Your task to perform on an android device: Clear the cart on walmart. Add bose quietcomfort 35 to the cart on walmart, then select checkout. Image 0: 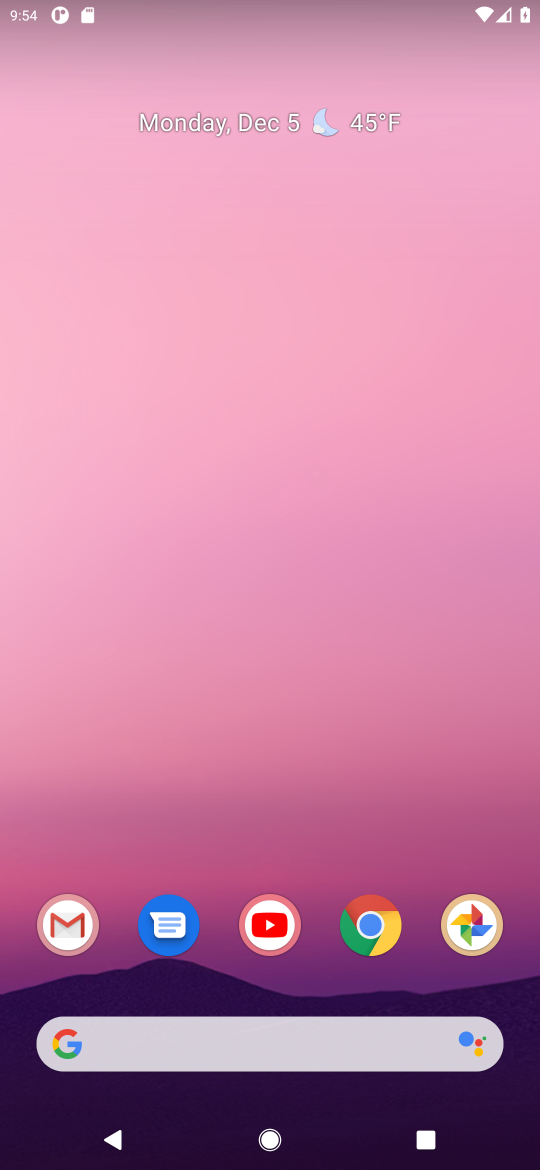
Step 0: click (379, 926)
Your task to perform on an android device: Clear the cart on walmart. Add bose quietcomfort 35 to the cart on walmart, then select checkout. Image 1: 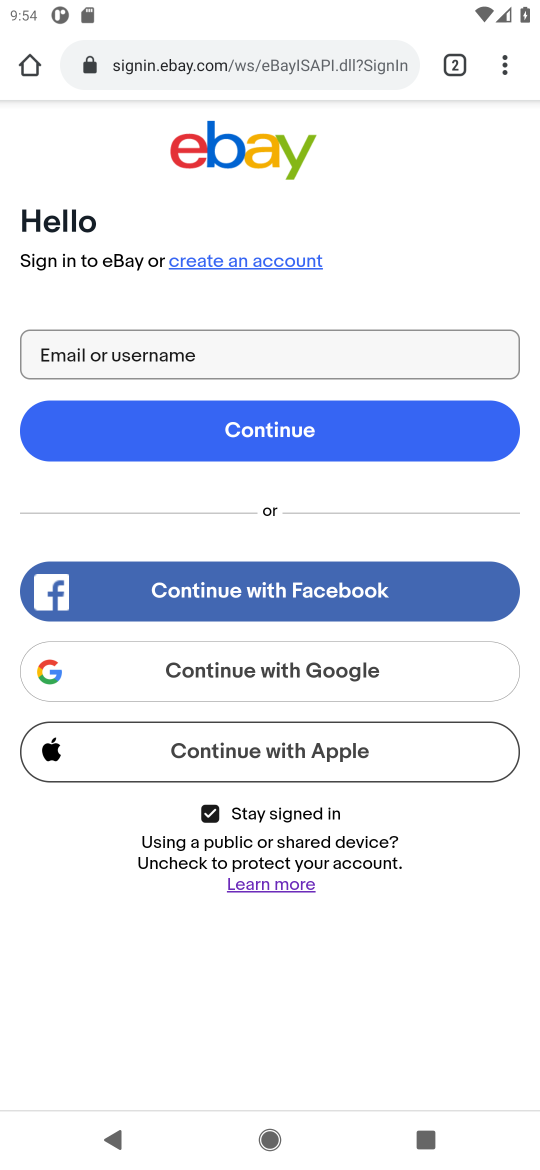
Step 1: click (227, 70)
Your task to perform on an android device: Clear the cart on walmart. Add bose quietcomfort 35 to the cart on walmart, then select checkout. Image 2: 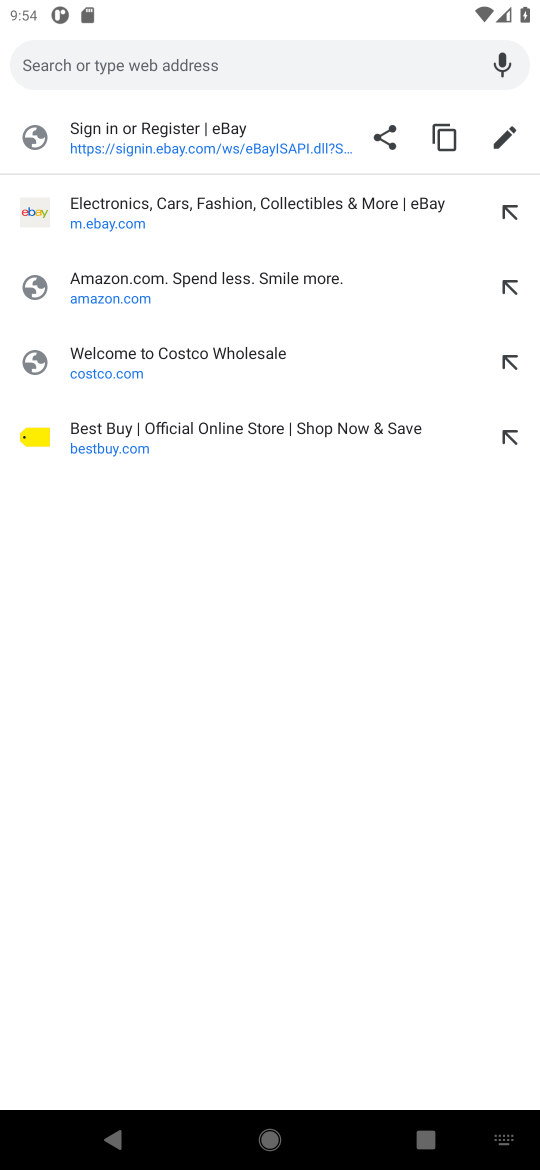
Step 2: type "walmart.com"
Your task to perform on an android device: Clear the cart on walmart. Add bose quietcomfort 35 to the cart on walmart, then select checkout. Image 3: 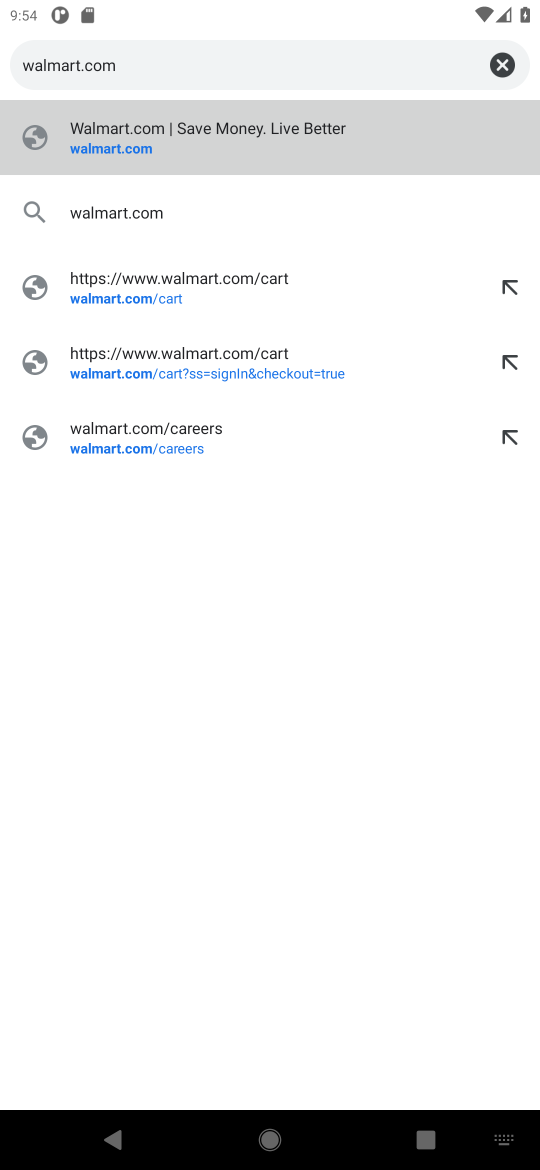
Step 3: click (122, 143)
Your task to perform on an android device: Clear the cart on walmart. Add bose quietcomfort 35 to the cart on walmart, then select checkout. Image 4: 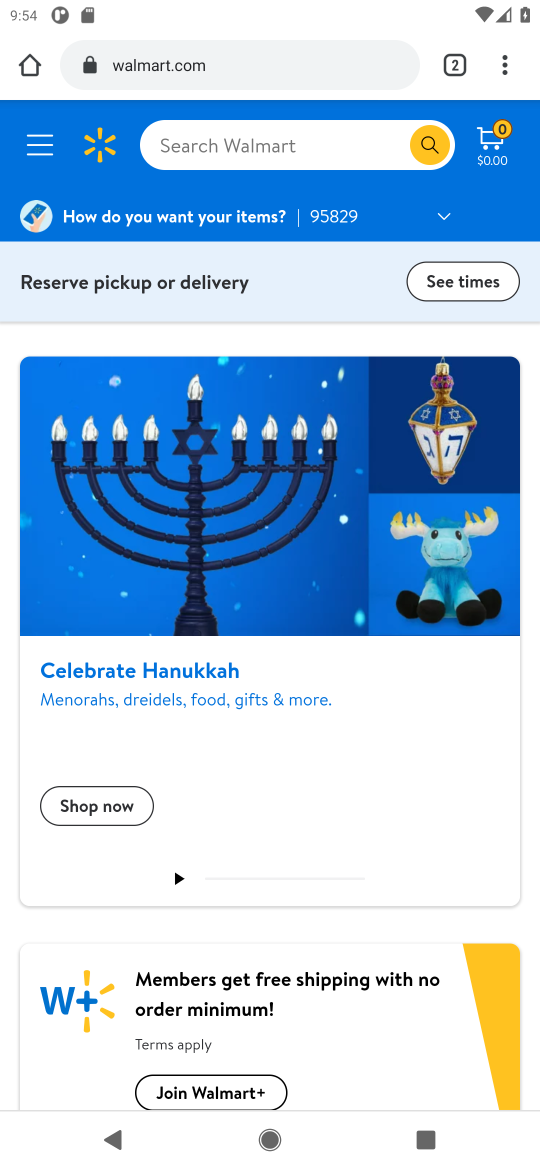
Step 4: click (489, 147)
Your task to perform on an android device: Clear the cart on walmart. Add bose quietcomfort 35 to the cart on walmart, then select checkout. Image 5: 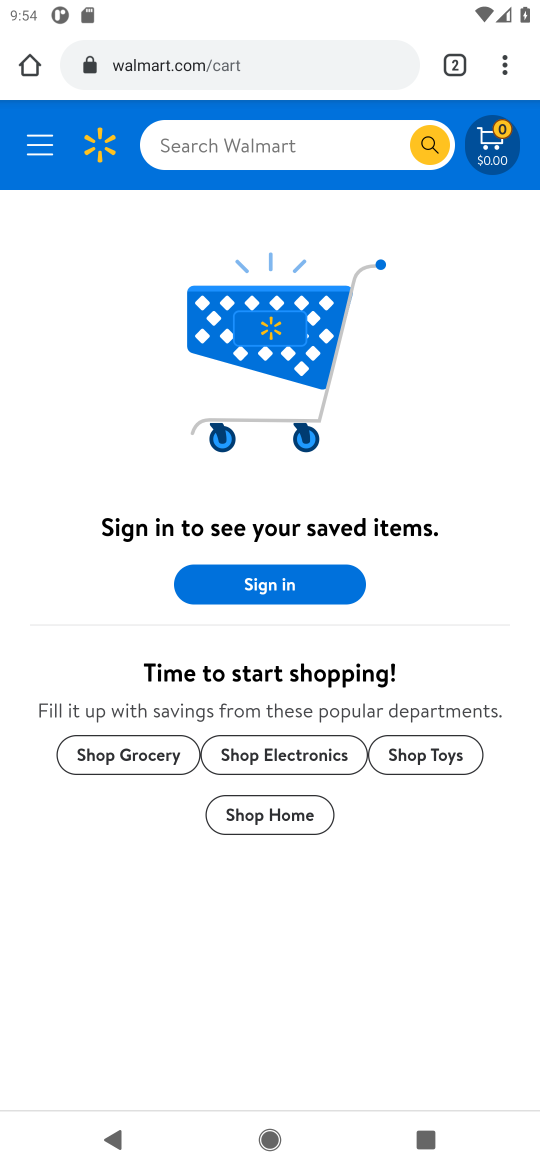
Step 5: click (231, 154)
Your task to perform on an android device: Clear the cart on walmart. Add bose quietcomfort 35 to the cart on walmart, then select checkout. Image 6: 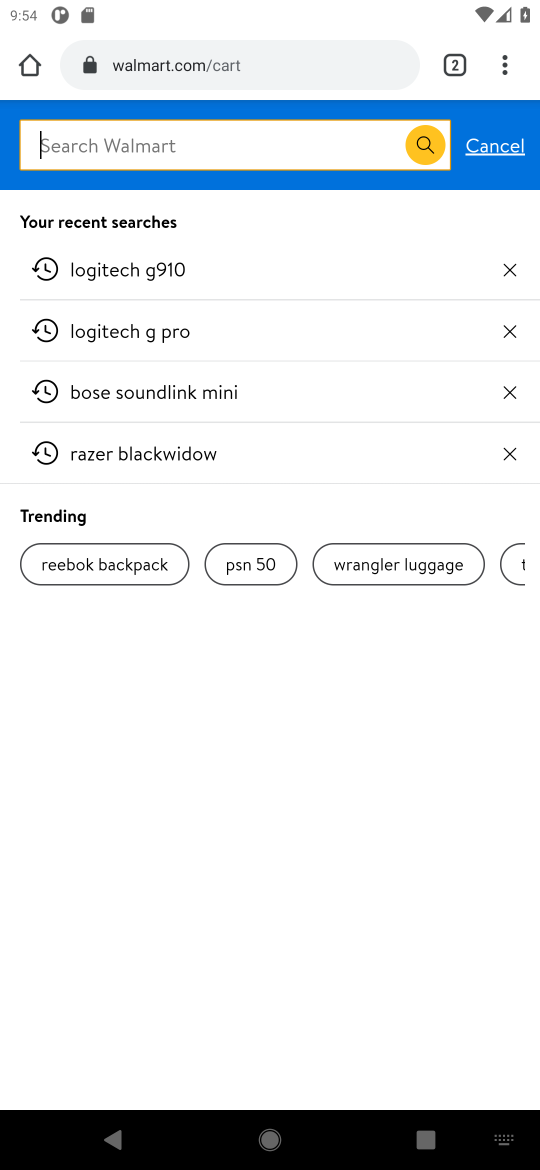
Step 6: type "bose quietcomfort 35 "
Your task to perform on an android device: Clear the cart on walmart. Add bose quietcomfort 35 to the cart on walmart, then select checkout. Image 7: 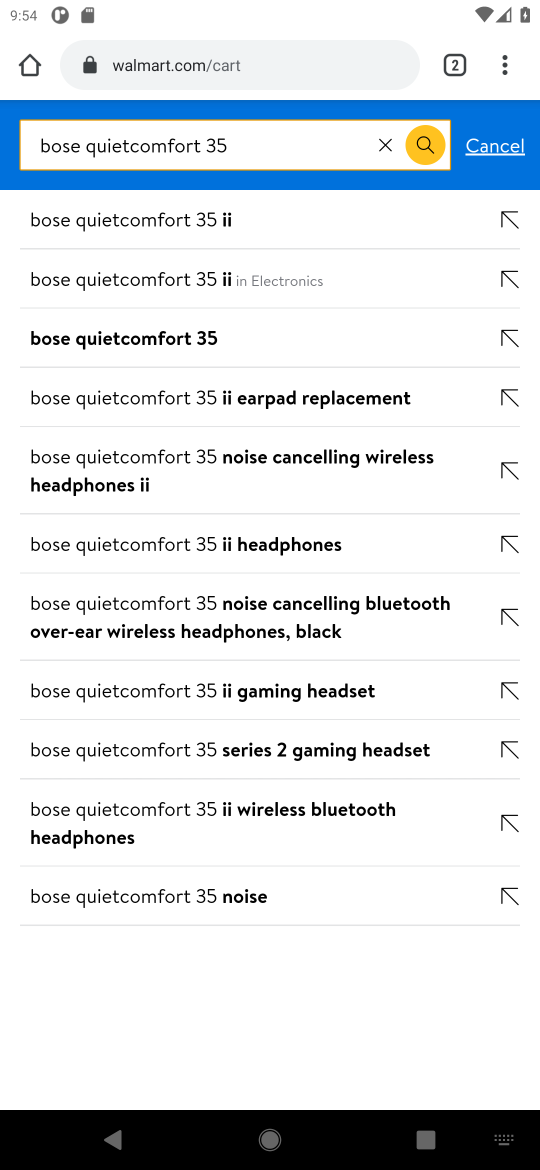
Step 7: click (86, 343)
Your task to perform on an android device: Clear the cart on walmart. Add bose quietcomfort 35 to the cart on walmart, then select checkout. Image 8: 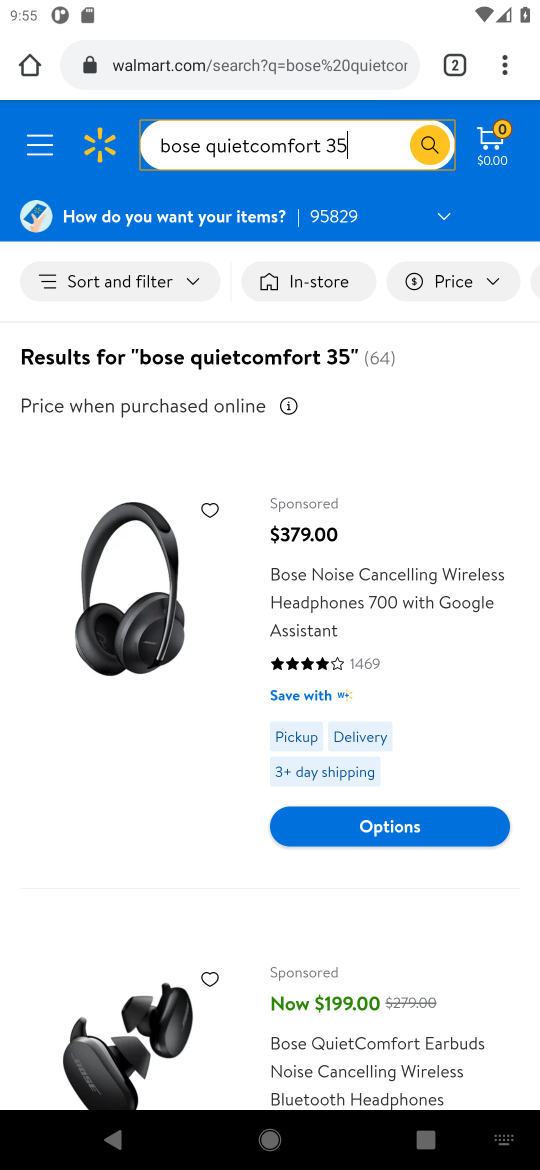
Step 8: drag from (281, 1010) to (258, 613)
Your task to perform on an android device: Clear the cart on walmart. Add bose quietcomfort 35 to the cart on walmart, then select checkout. Image 9: 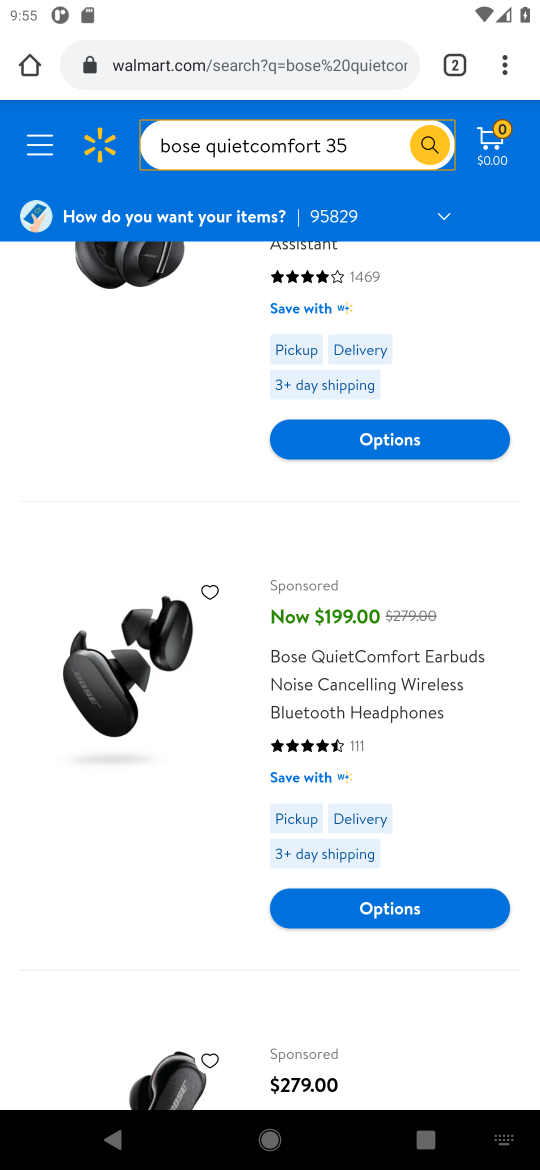
Step 9: drag from (279, 806) to (292, 434)
Your task to perform on an android device: Clear the cart on walmart. Add bose quietcomfort 35 to the cart on walmart, then select checkout. Image 10: 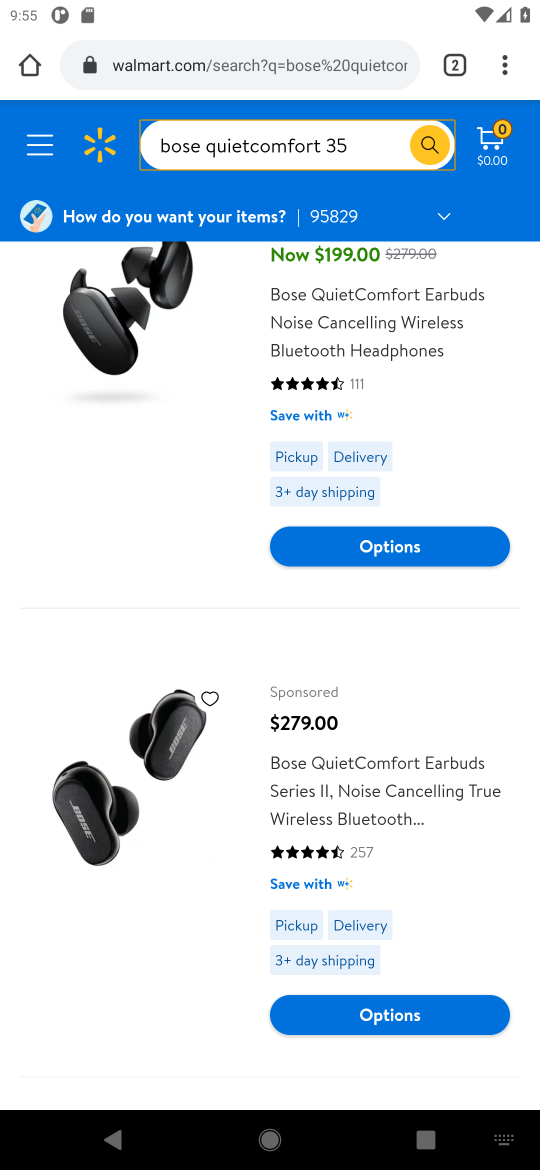
Step 10: drag from (178, 856) to (133, 408)
Your task to perform on an android device: Clear the cart on walmart. Add bose quietcomfort 35 to the cart on walmart, then select checkout. Image 11: 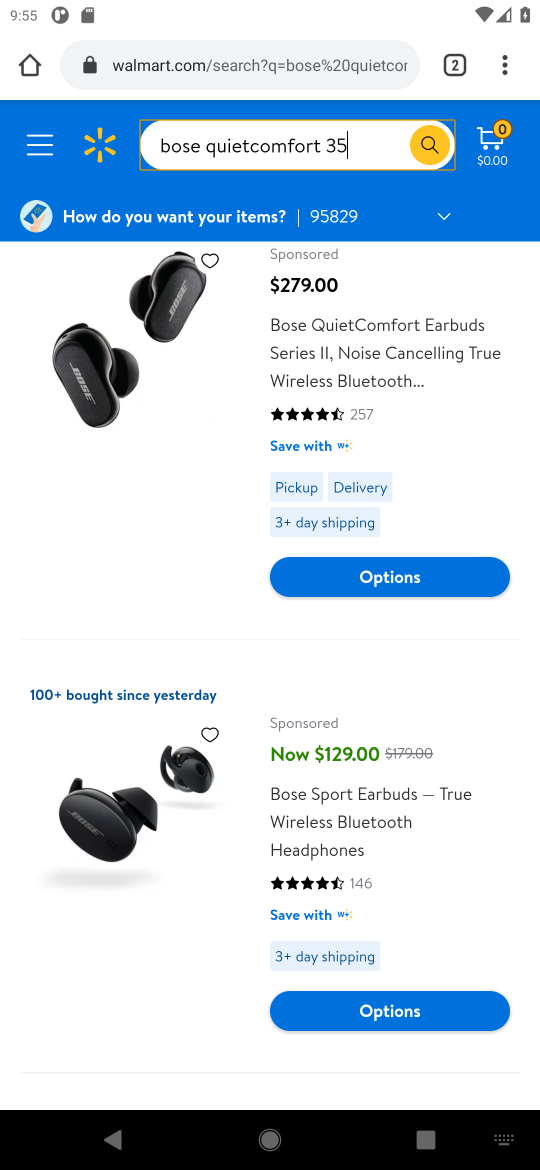
Step 11: drag from (162, 803) to (157, 342)
Your task to perform on an android device: Clear the cart on walmart. Add bose quietcomfort 35 to the cart on walmart, then select checkout. Image 12: 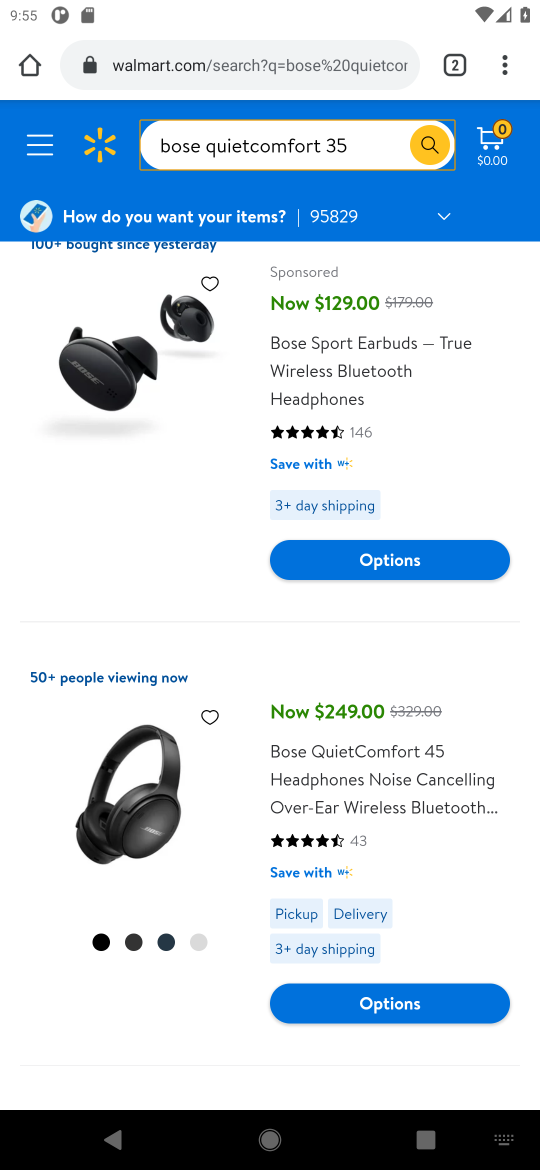
Step 12: drag from (163, 801) to (123, 378)
Your task to perform on an android device: Clear the cart on walmart. Add bose quietcomfort 35 to the cart on walmart, then select checkout. Image 13: 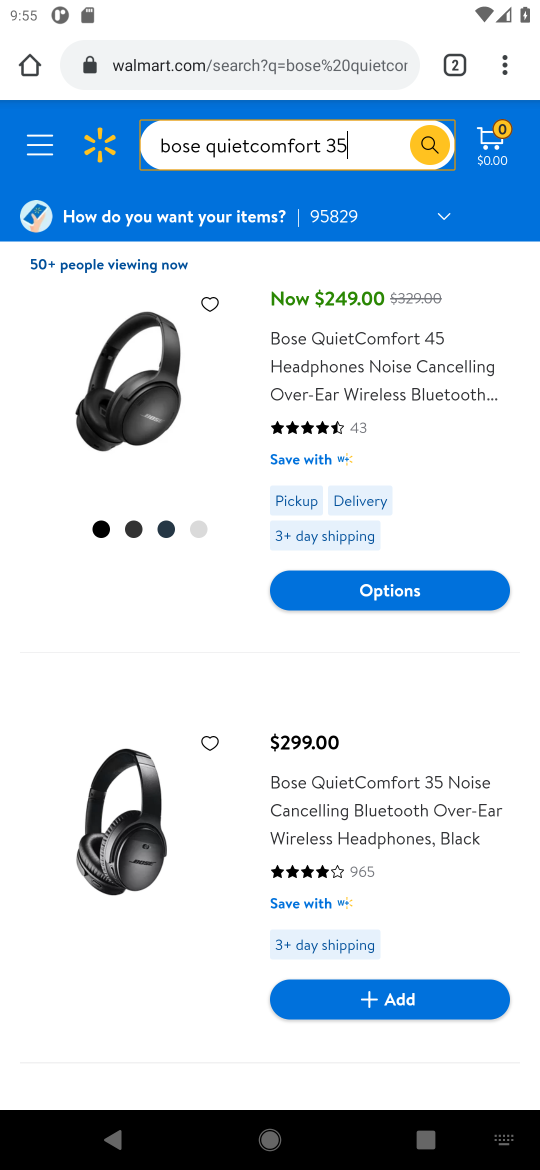
Step 13: click (362, 841)
Your task to perform on an android device: Clear the cart on walmart. Add bose quietcomfort 35 to the cart on walmart, then select checkout. Image 14: 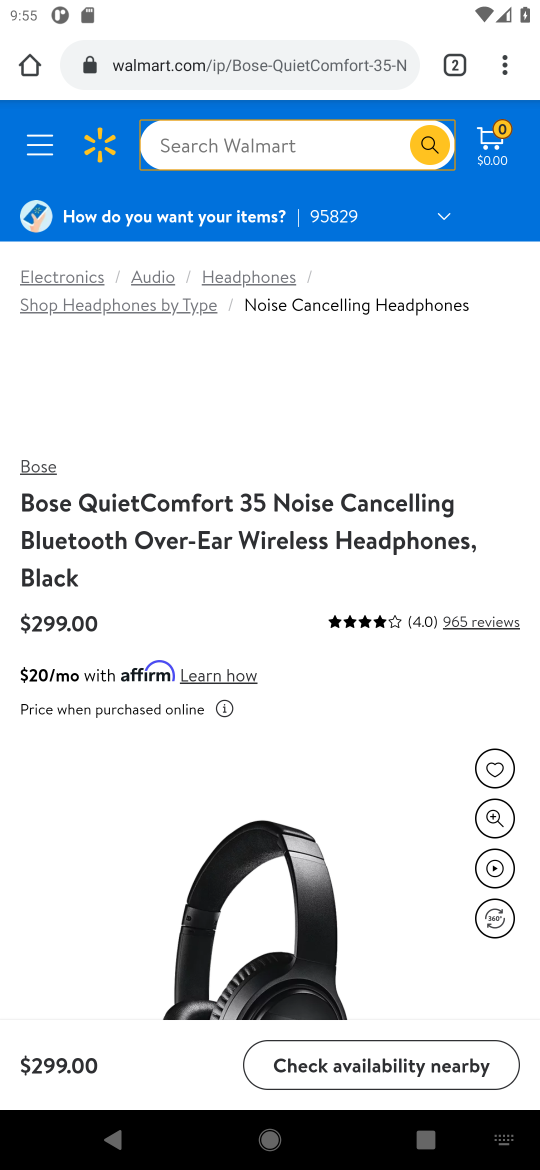
Step 14: drag from (352, 921) to (329, 385)
Your task to perform on an android device: Clear the cart on walmart. Add bose quietcomfort 35 to the cart on walmart, then select checkout. Image 15: 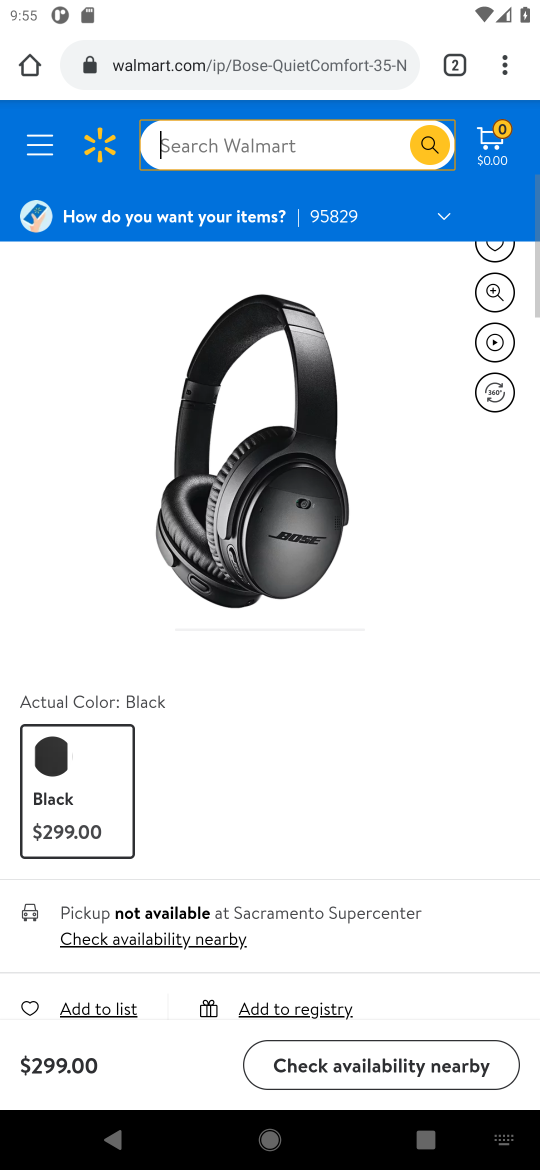
Step 15: drag from (386, 863) to (348, 453)
Your task to perform on an android device: Clear the cart on walmart. Add bose quietcomfort 35 to the cart on walmart, then select checkout. Image 16: 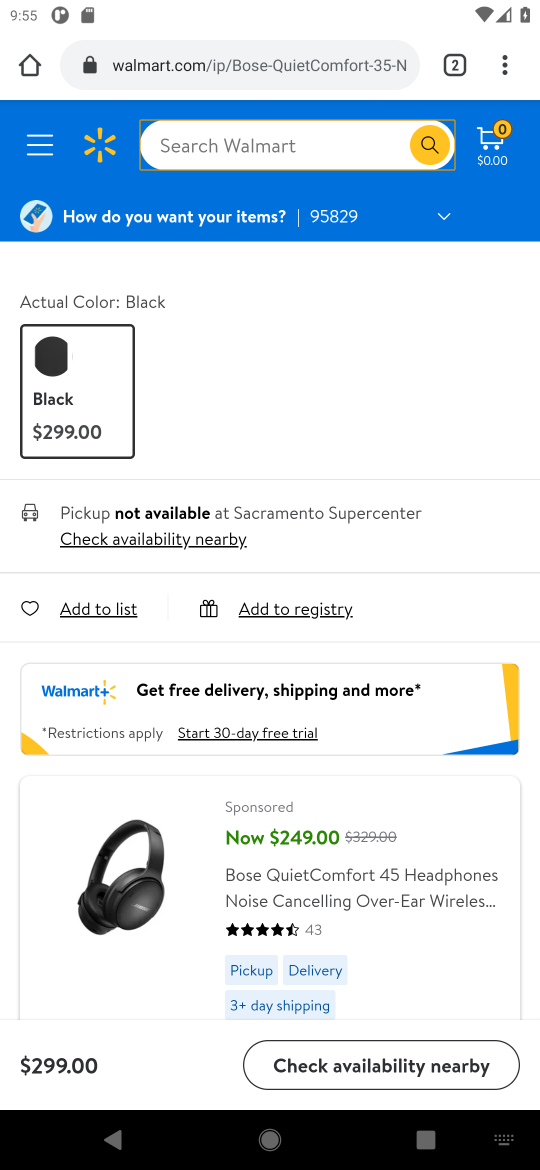
Step 16: drag from (309, 856) to (299, 403)
Your task to perform on an android device: Clear the cart on walmart. Add bose quietcomfort 35 to the cart on walmart, then select checkout. Image 17: 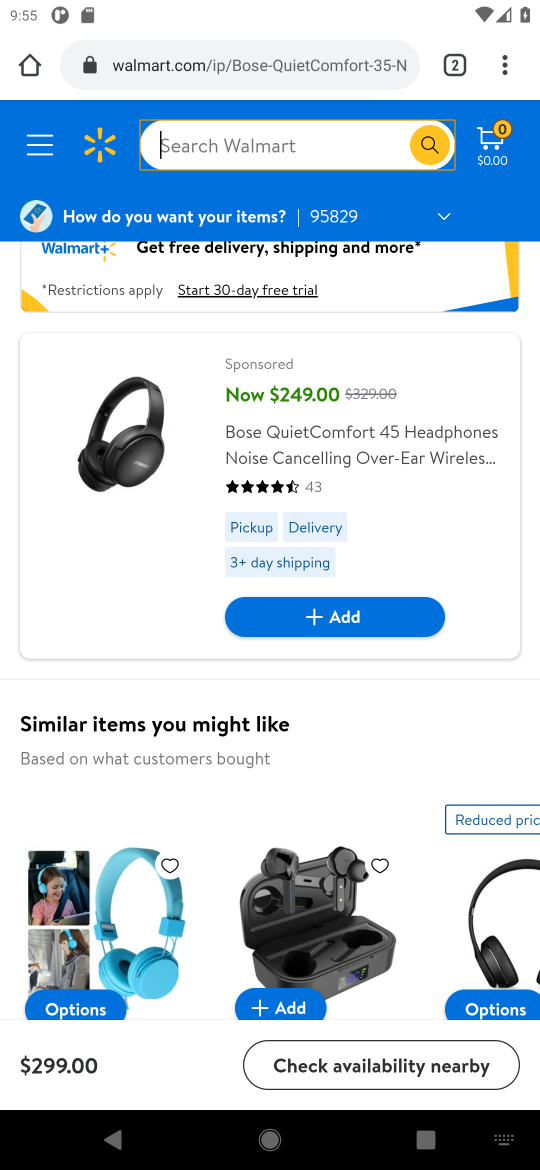
Step 17: drag from (331, 537) to (361, 865)
Your task to perform on an android device: Clear the cart on walmart. Add bose quietcomfort 35 to the cart on walmart, then select checkout. Image 18: 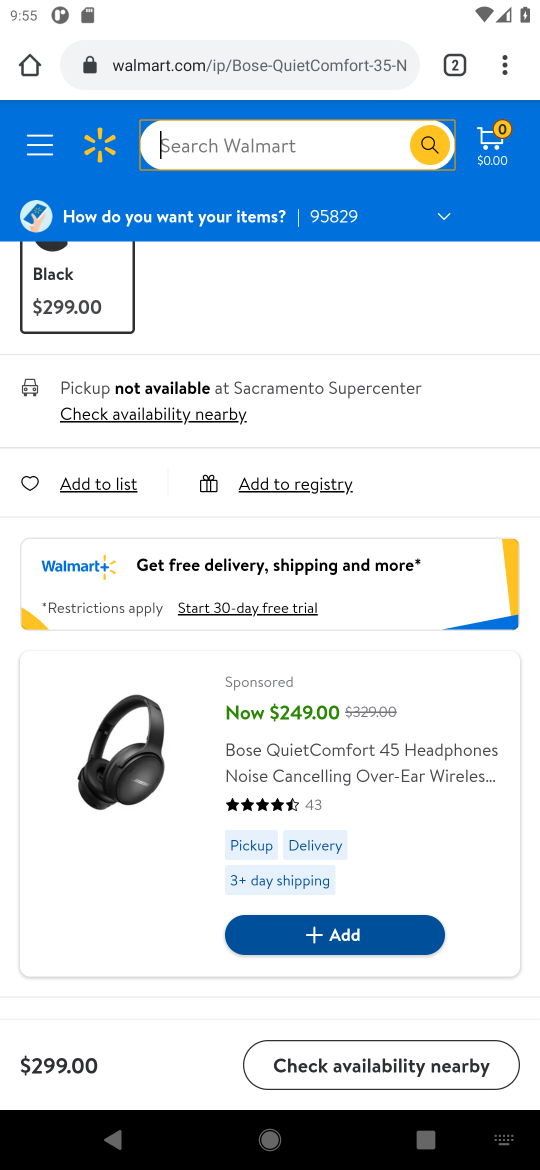
Step 18: drag from (330, 462) to (330, 813)
Your task to perform on an android device: Clear the cart on walmart. Add bose quietcomfort 35 to the cart on walmart, then select checkout. Image 19: 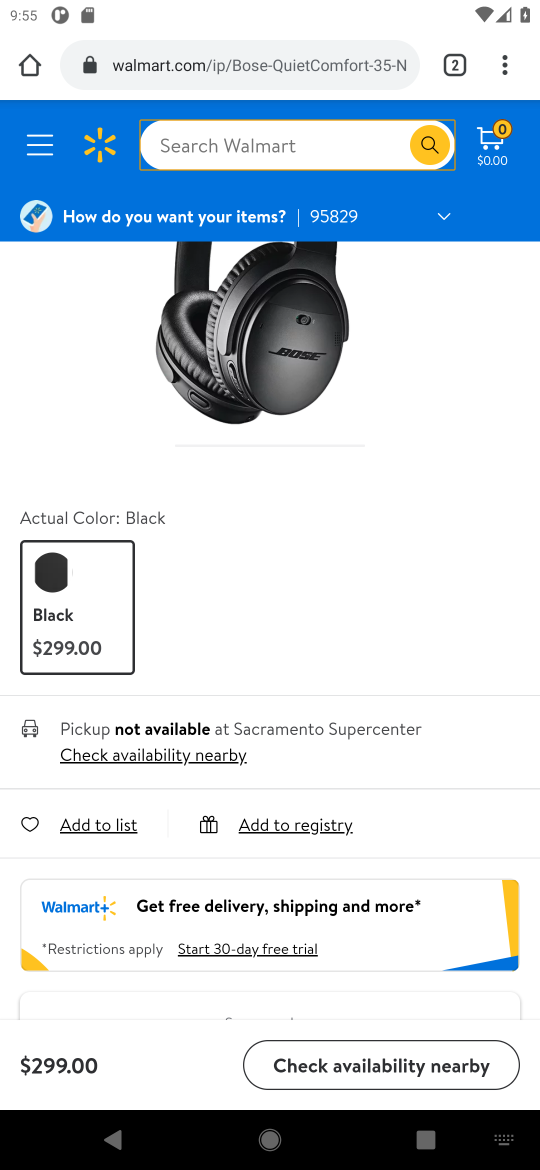
Step 19: drag from (265, 614) to (294, 935)
Your task to perform on an android device: Clear the cart on walmart. Add bose quietcomfort 35 to the cart on walmart, then select checkout. Image 20: 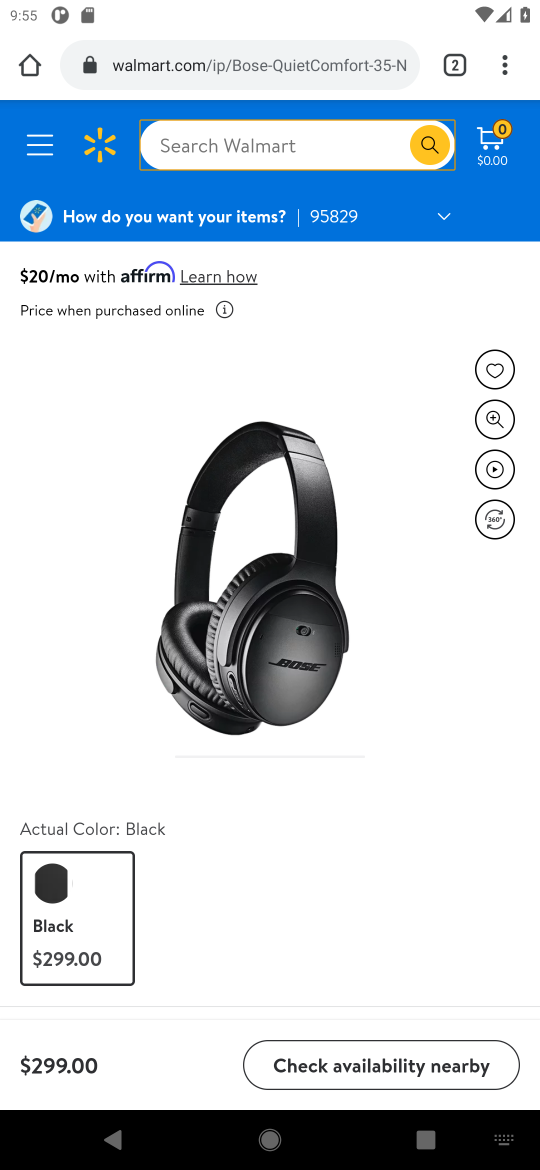
Step 20: drag from (298, 534) to (295, 881)
Your task to perform on an android device: Clear the cart on walmart. Add bose quietcomfort 35 to the cart on walmart, then select checkout. Image 21: 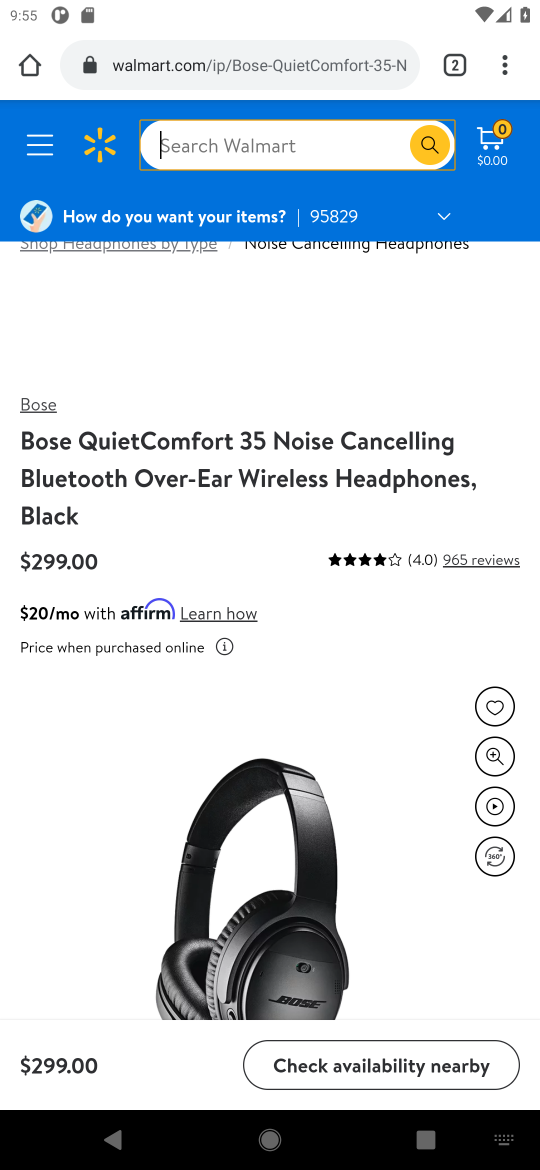
Step 21: press back button
Your task to perform on an android device: Clear the cart on walmart. Add bose quietcomfort 35 to the cart on walmart, then select checkout. Image 22: 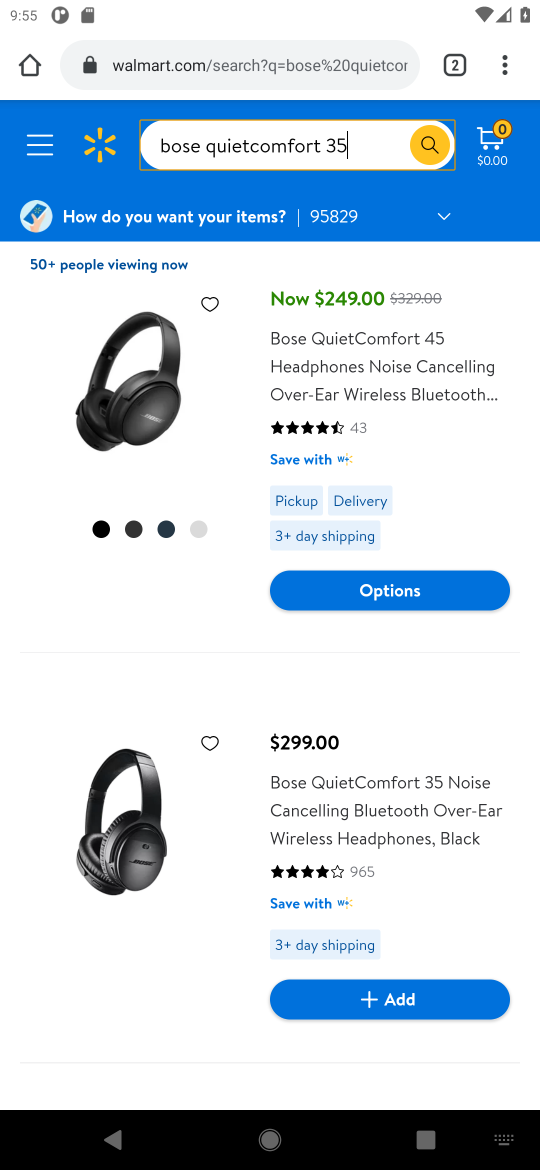
Step 22: drag from (246, 819) to (260, 614)
Your task to perform on an android device: Clear the cart on walmart. Add bose quietcomfort 35 to the cart on walmart, then select checkout. Image 23: 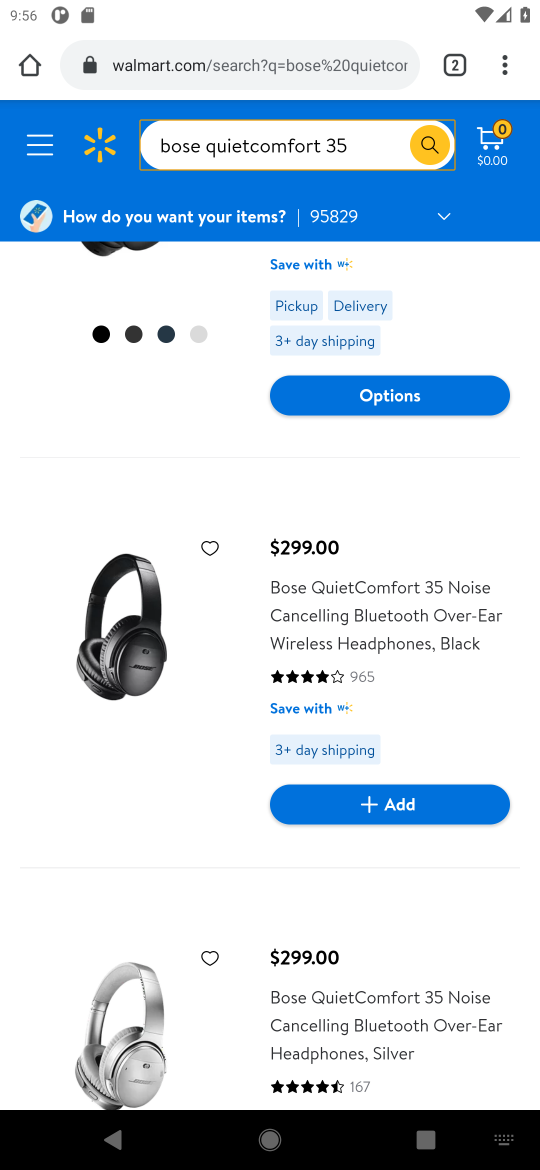
Step 23: click (355, 800)
Your task to perform on an android device: Clear the cart on walmart. Add bose quietcomfort 35 to the cart on walmart, then select checkout. Image 24: 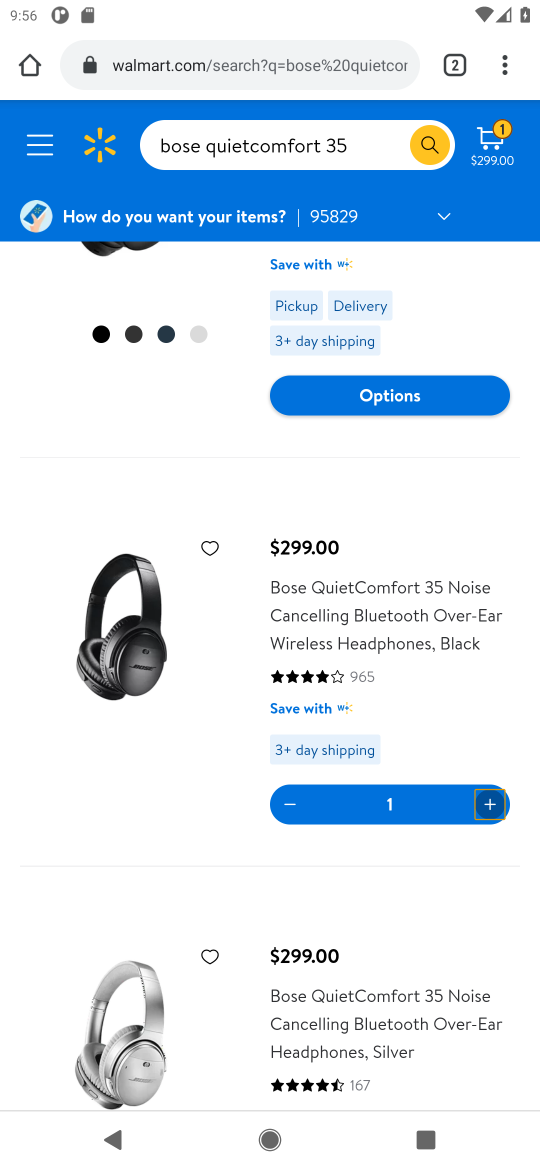
Step 24: click (485, 152)
Your task to perform on an android device: Clear the cart on walmart. Add bose quietcomfort 35 to the cart on walmart, then select checkout. Image 25: 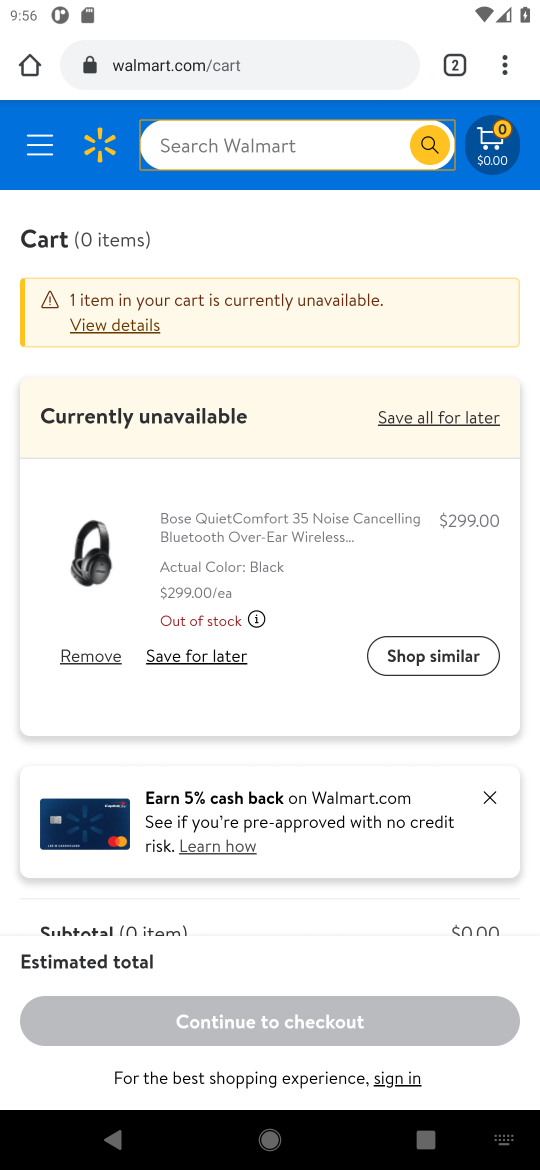
Step 25: task complete